Your task to perform on an android device: search for starred emails in the gmail app Image 0: 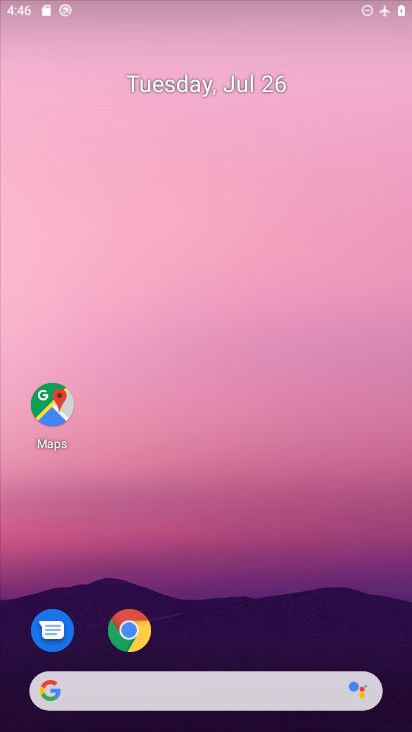
Step 0: click (401, 572)
Your task to perform on an android device: search for starred emails in the gmail app Image 1: 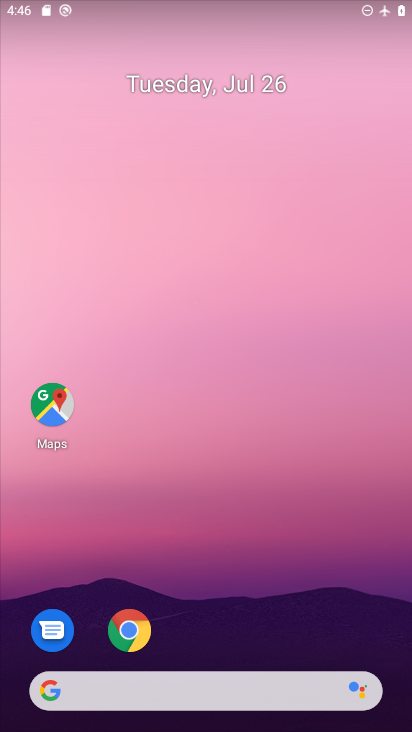
Step 1: drag from (291, 614) to (215, 97)
Your task to perform on an android device: search for starred emails in the gmail app Image 2: 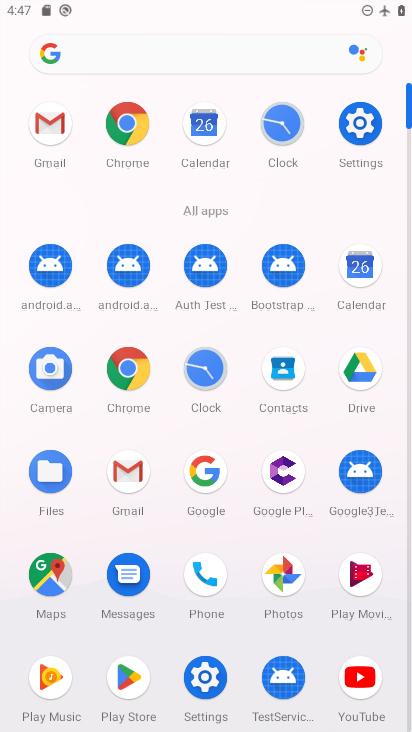
Step 2: click (52, 126)
Your task to perform on an android device: search for starred emails in the gmail app Image 3: 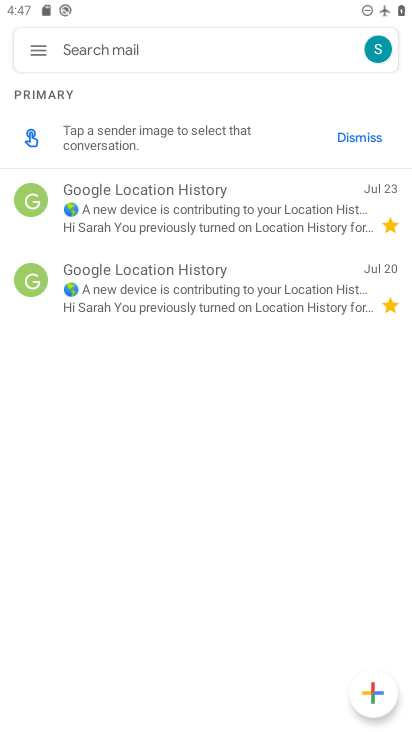
Step 3: click (38, 56)
Your task to perform on an android device: search for starred emails in the gmail app Image 4: 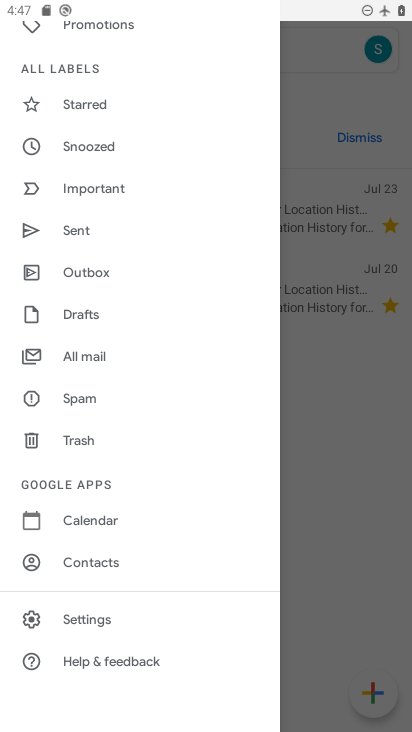
Step 4: click (104, 106)
Your task to perform on an android device: search for starred emails in the gmail app Image 5: 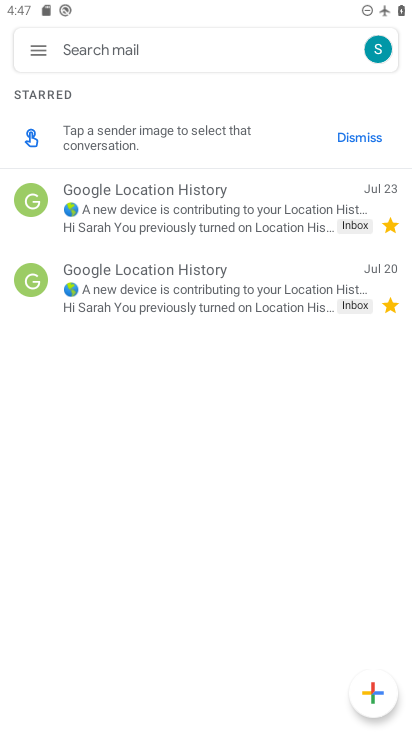
Step 5: task complete